Your task to perform on an android device: What's US dollar exchange rate against the South Korean Won? Image 0: 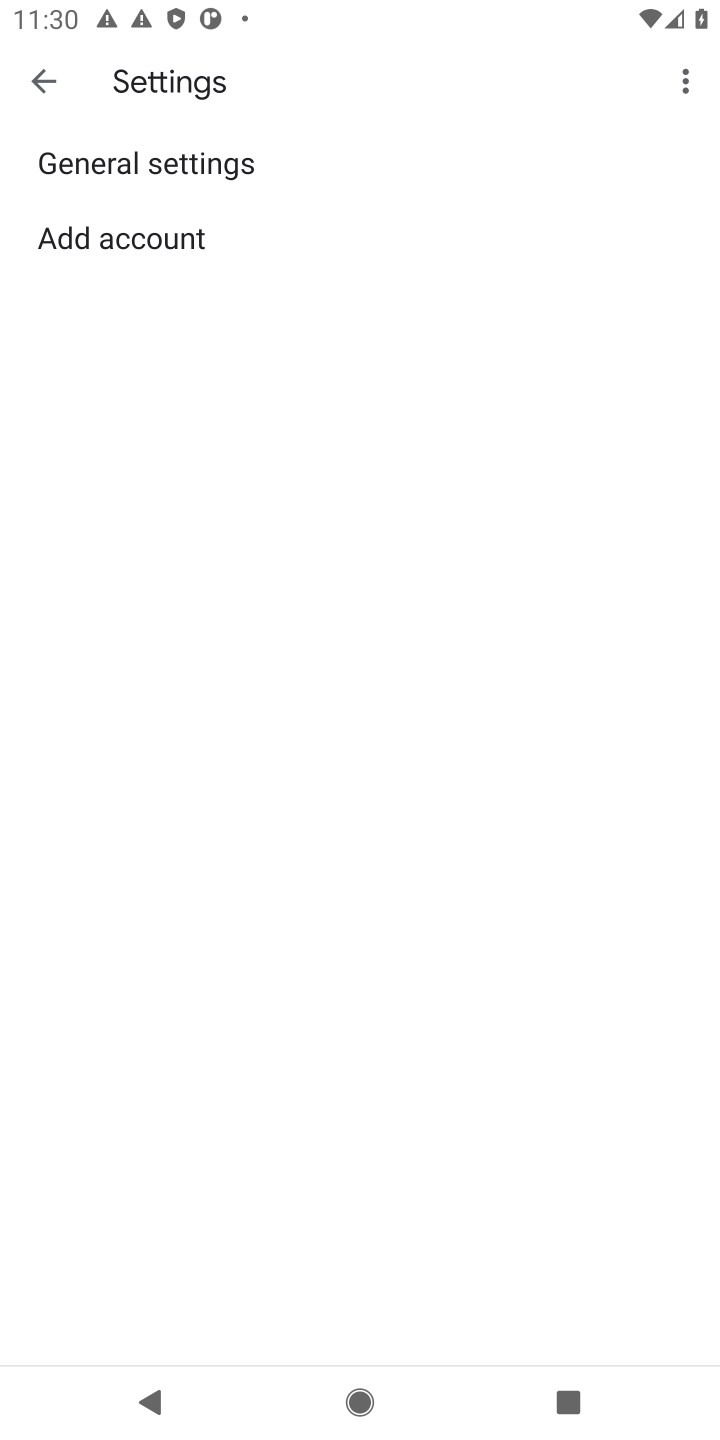
Step 0: press home button
Your task to perform on an android device: What's US dollar exchange rate against the South Korean Won? Image 1: 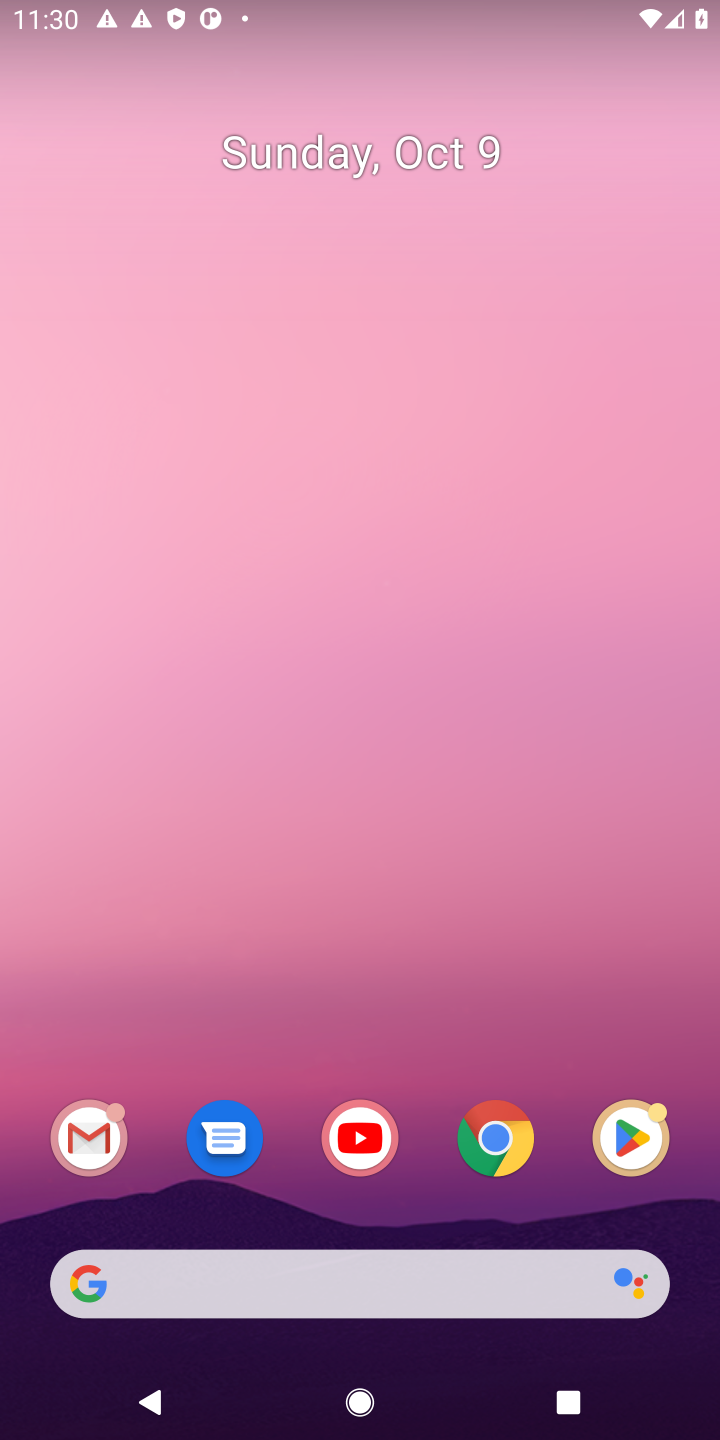
Step 1: click (492, 1140)
Your task to perform on an android device: What's US dollar exchange rate against the South Korean Won? Image 2: 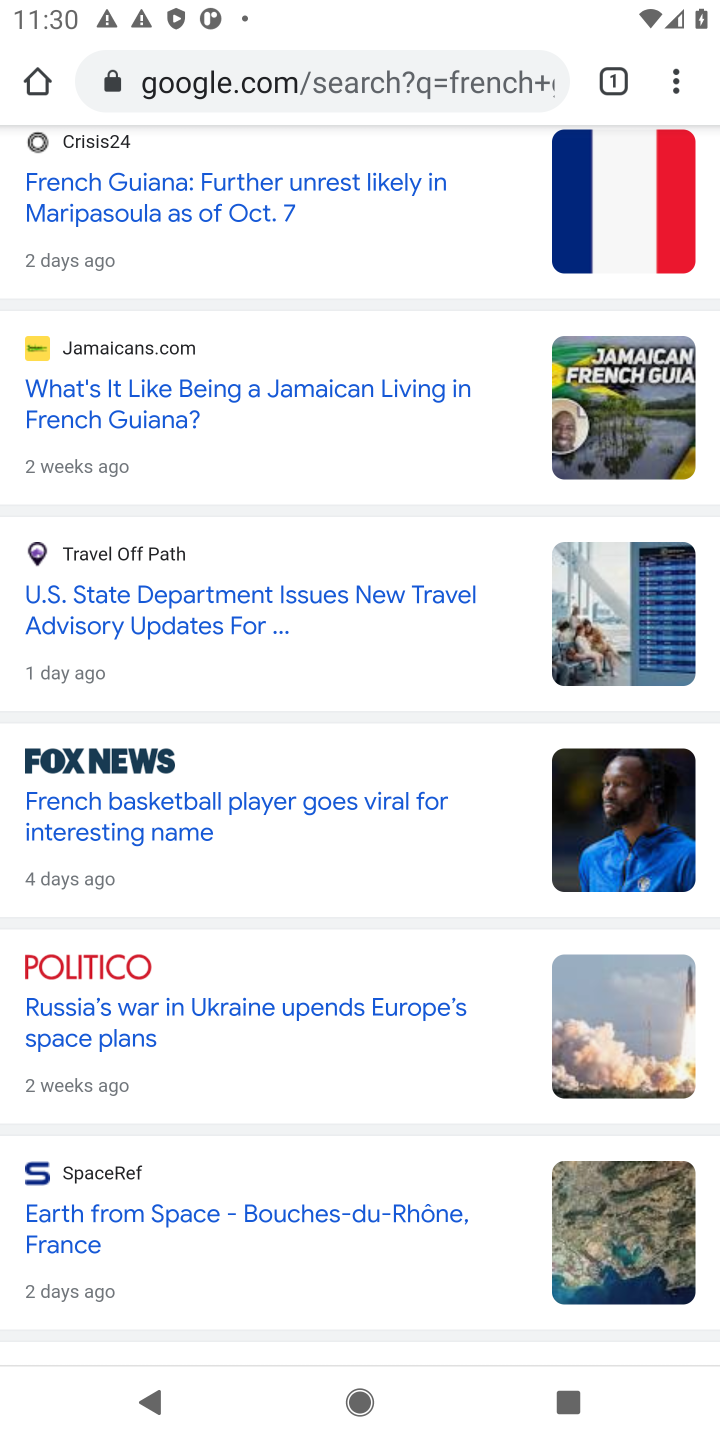
Step 2: click (285, 78)
Your task to perform on an android device: What's US dollar exchange rate against the South Korean Won? Image 3: 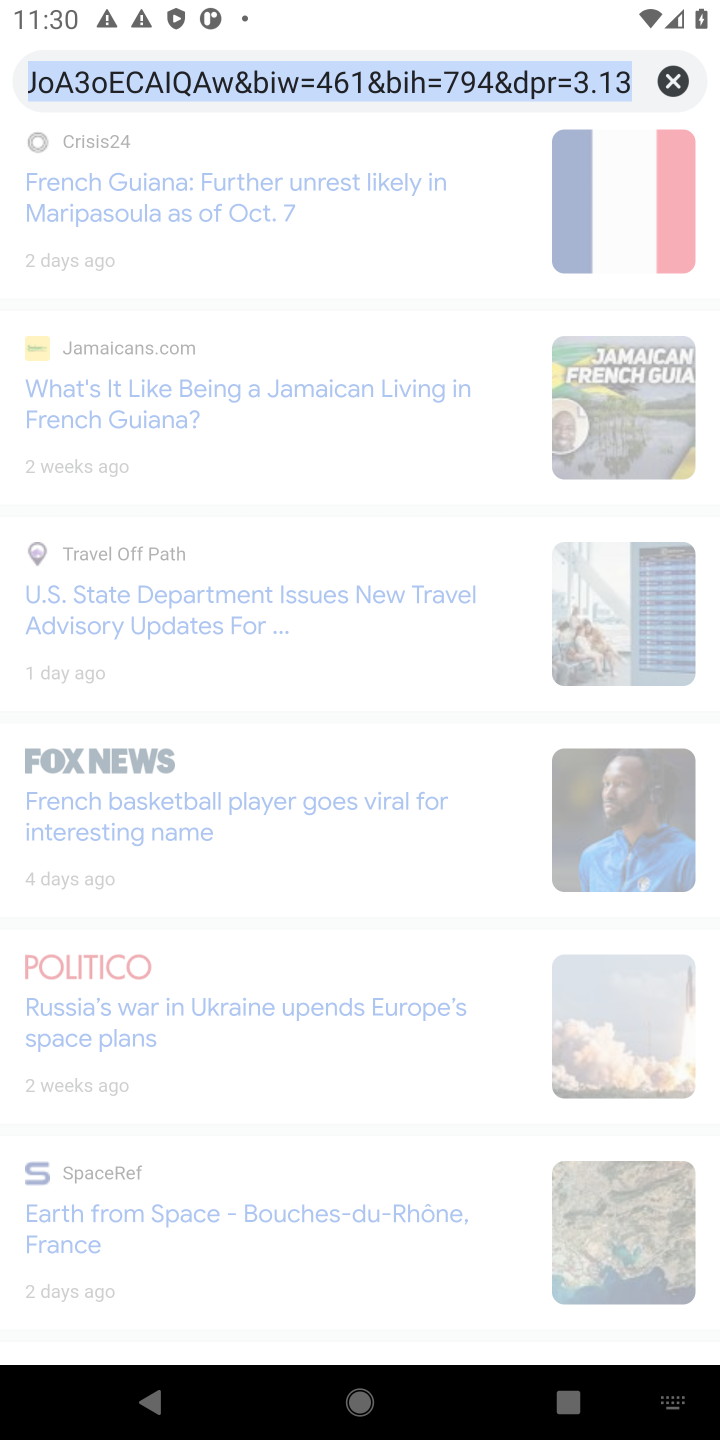
Step 3: type "usd to won"
Your task to perform on an android device: What's US dollar exchange rate against the South Korean Won? Image 4: 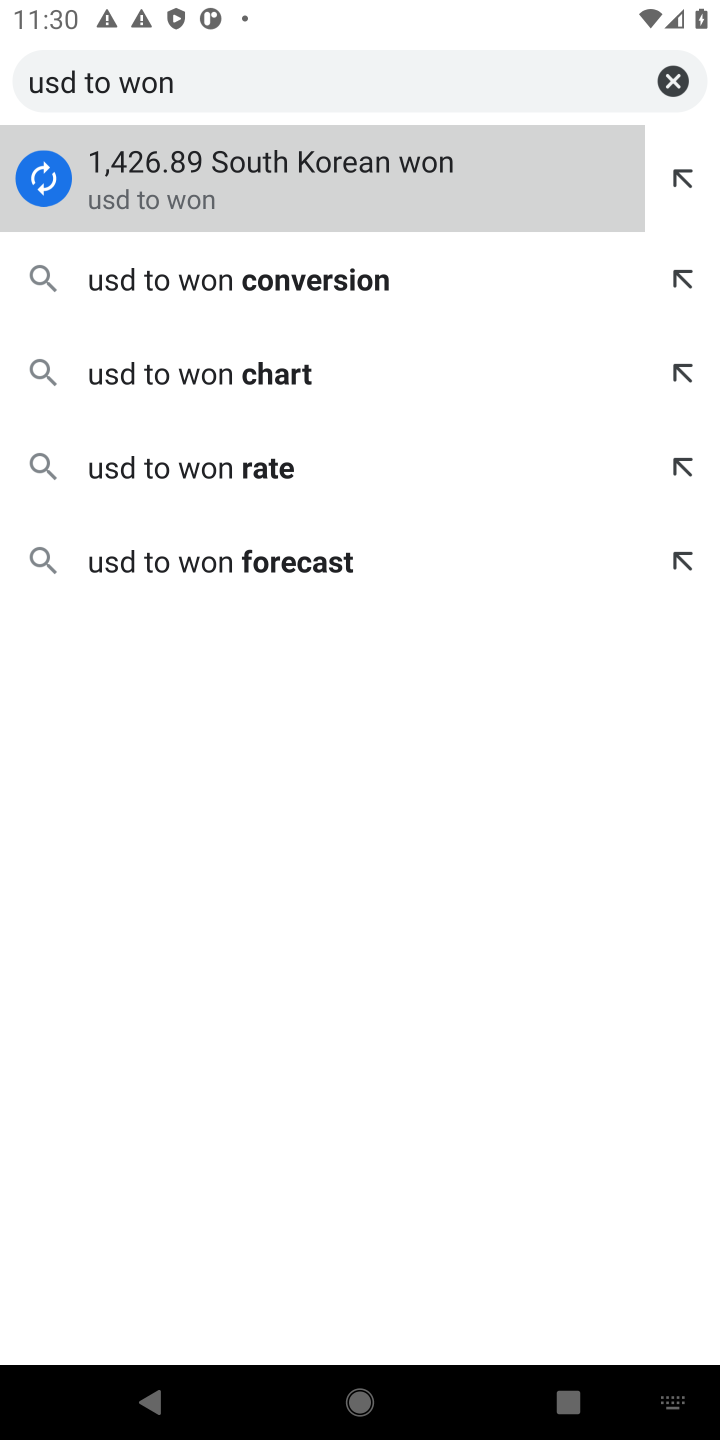
Step 4: click (317, 167)
Your task to perform on an android device: What's US dollar exchange rate against the South Korean Won? Image 5: 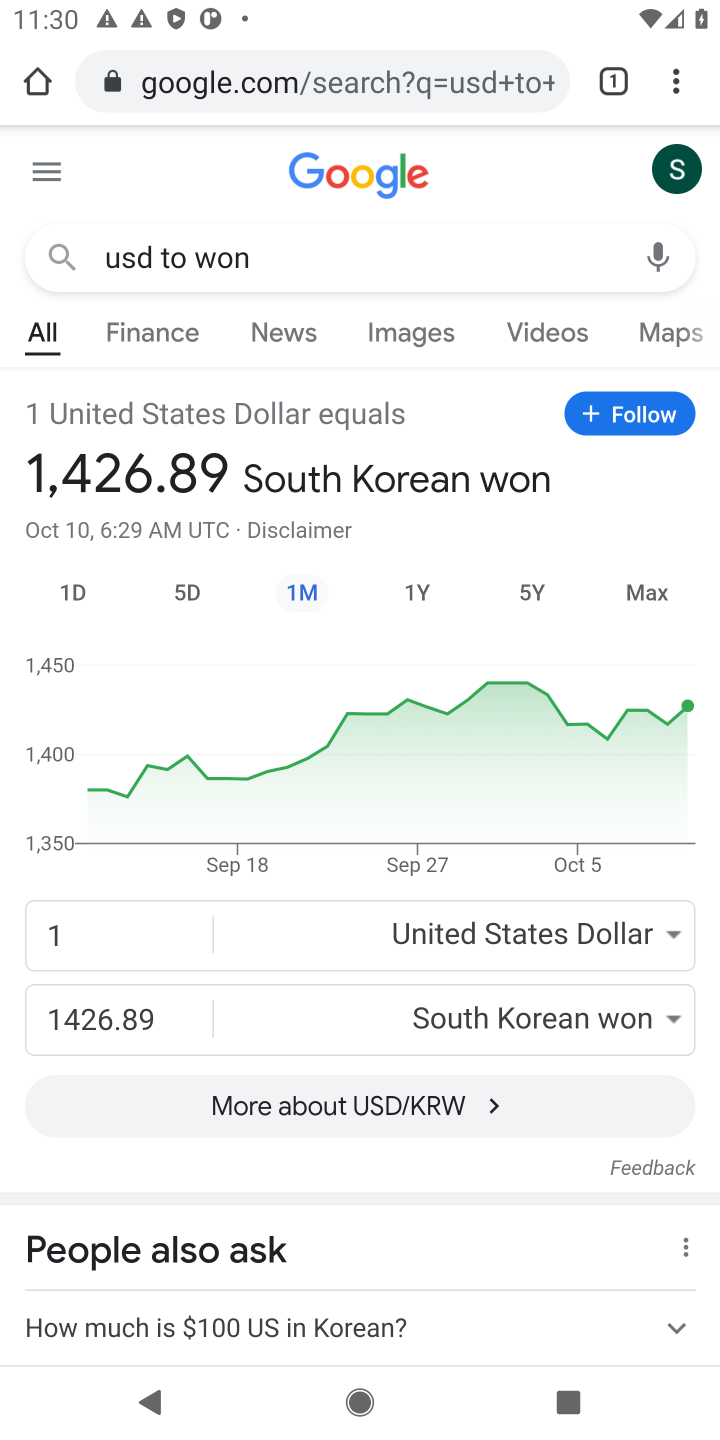
Step 5: task complete